Your task to perform on an android device: Open the stopwatch Image 0: 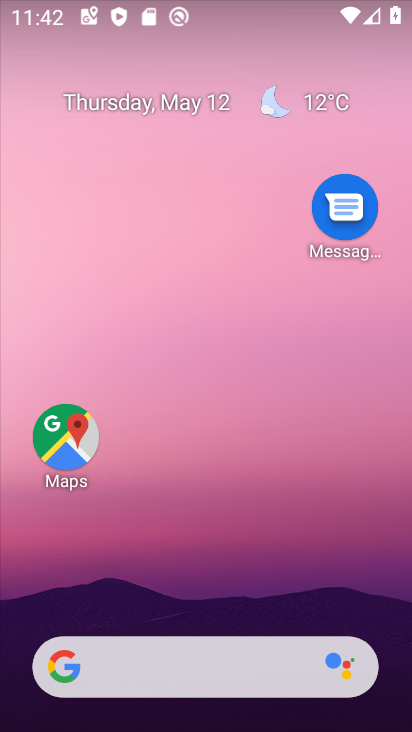
Step 0: press home button
Your task to perform on an android device: Open the stopwatch Image 1: 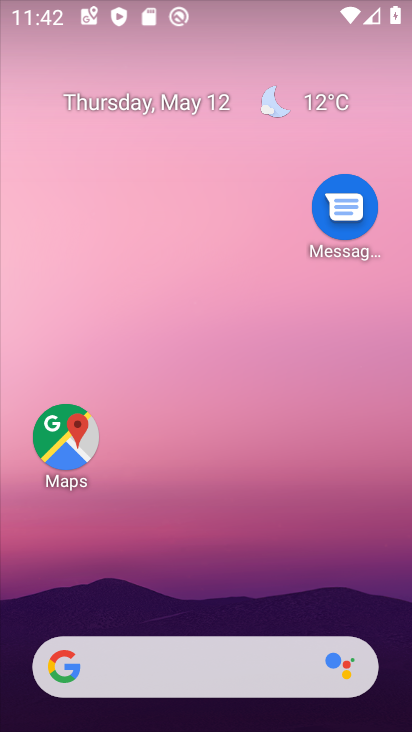
Step 1: drag from (272, 556) to (328, 8)
Your task to perform on an android device: Open the stopwatch Image 2: 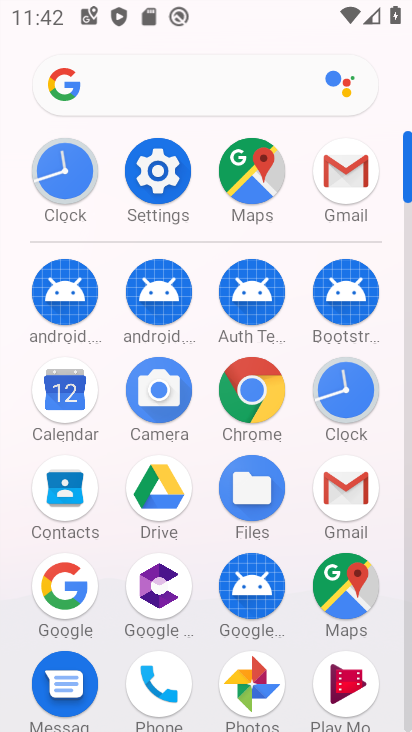
Step 2: click (359, 390)
Your task to perform on an android device: Open the stopwatch Image 3: 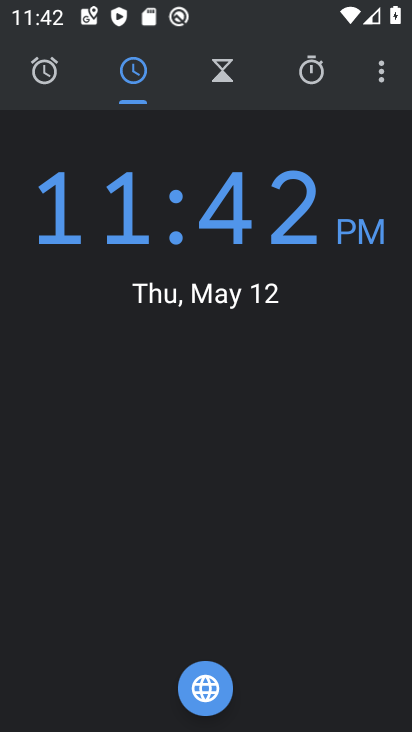
Step 3: click (383, 82)
Your task to perform on an android device: Open the stopwatch Image 4: 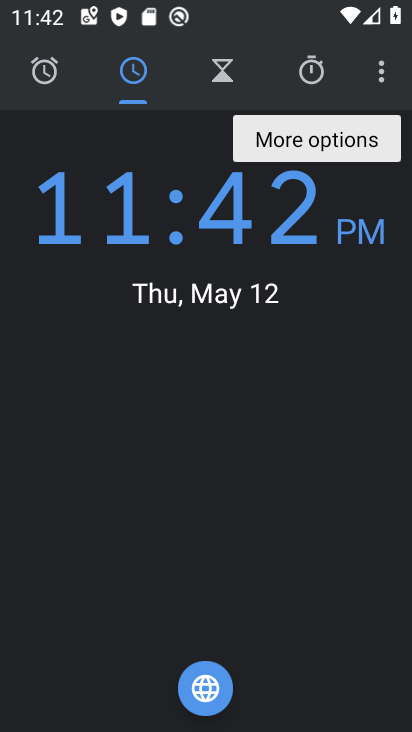
Step 4: click (383, 82)
Your task to perform on an android device: Open the stopwatch Image 5: 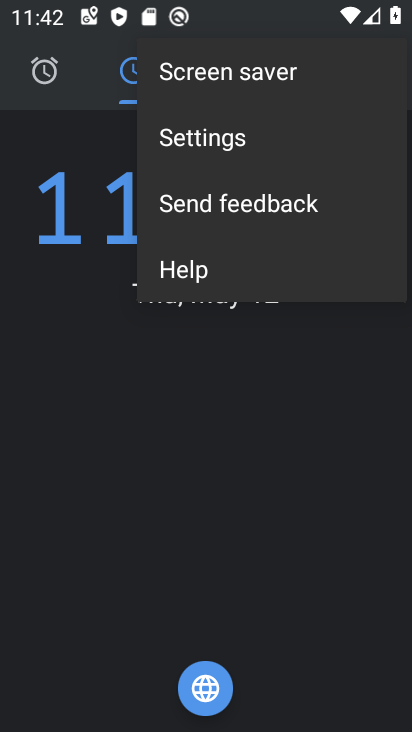
Step 5: click (81, 313)
Your task to perform on an android device: Open the stopwatch Image 6: 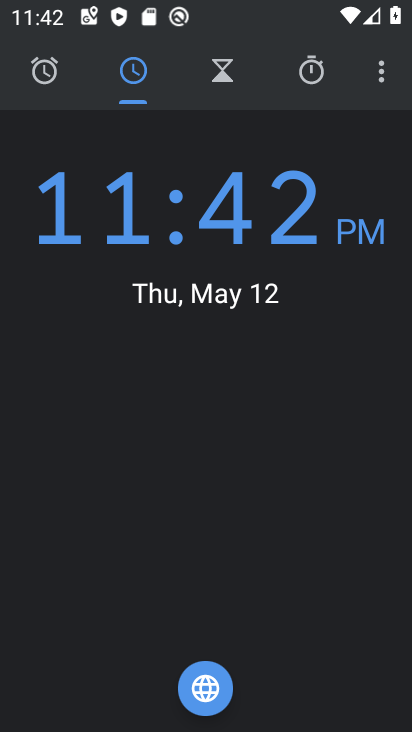
Step 6: click (326, 63)
Your task to perform on an android device: Open the stopwatch Image 7: 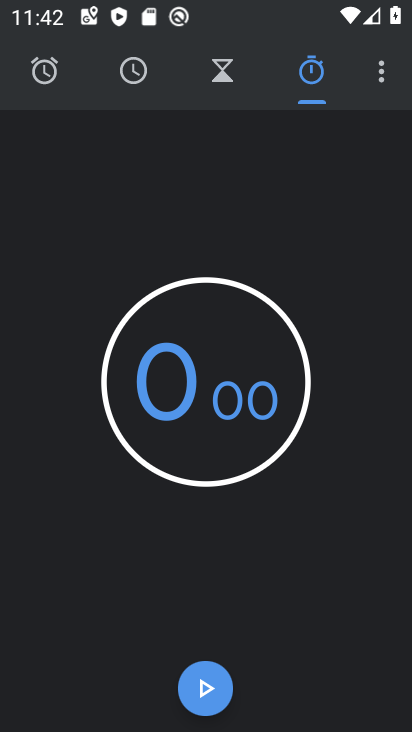
Step 7: task complete